Your task to perform on an android device: Clear the shopping cart on bestbuy.com. Image 0: 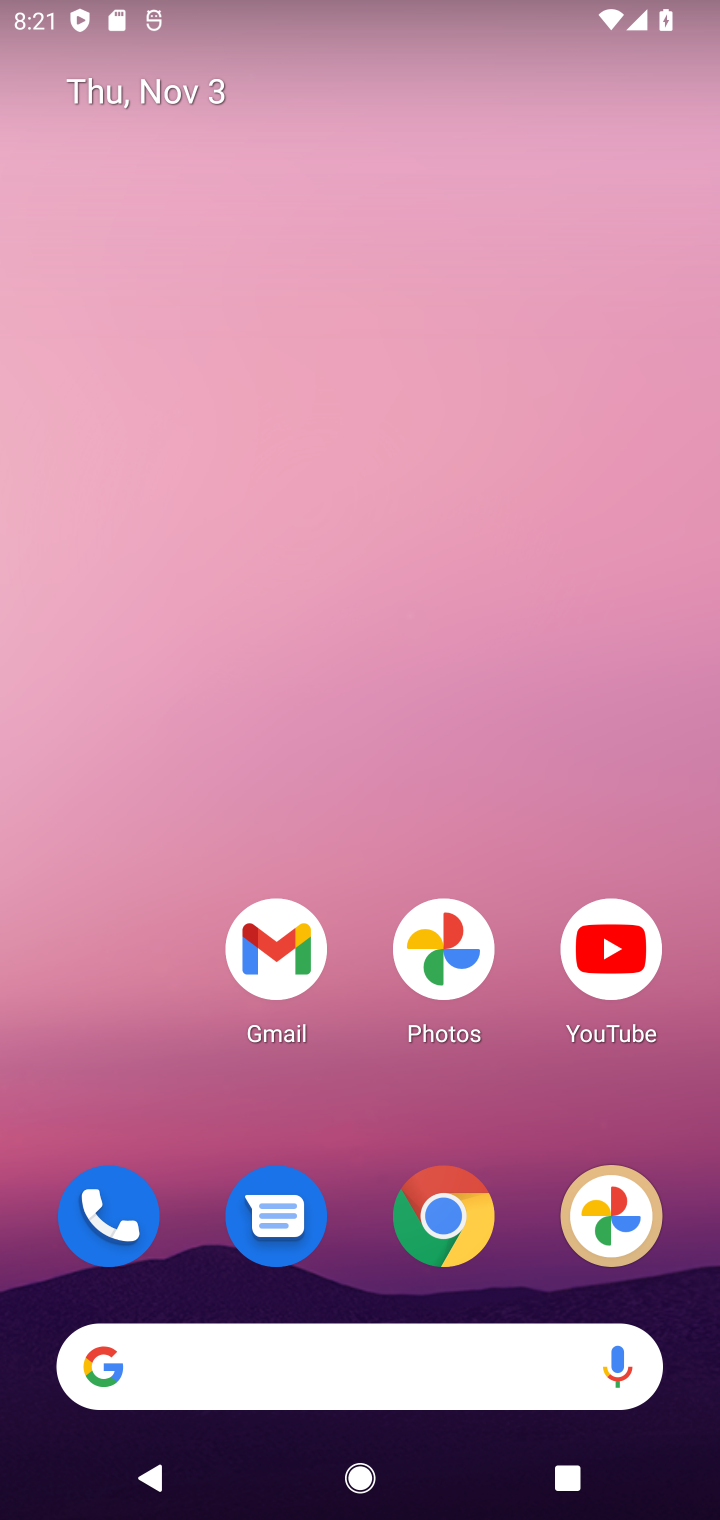
Step 0: click (456, 1218)
Your task to perform on an android device: Clear the shopping cart on bestbuy.com. Image 1: 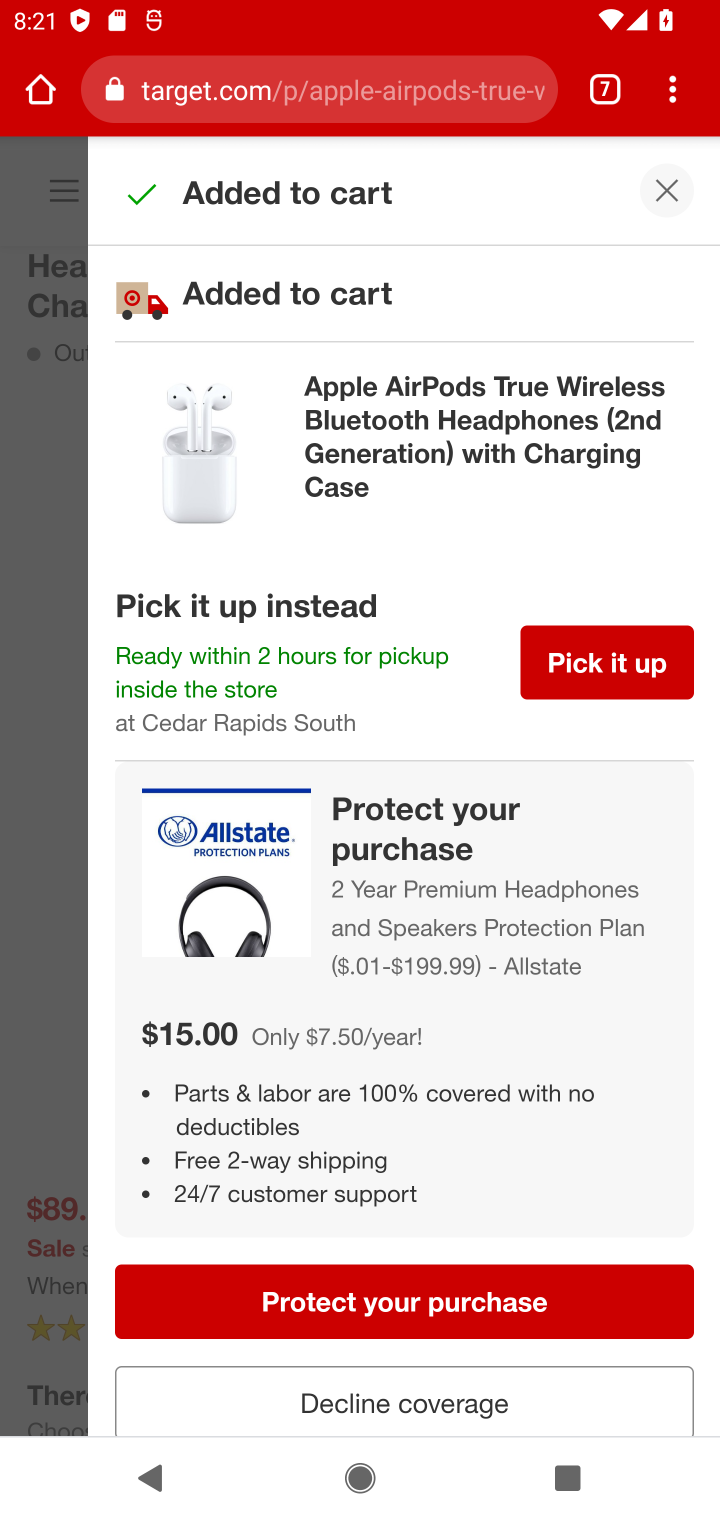
Step 1: click (614, 88)
Your task to perform on an android device: Clear the shopping cart on bestbuy.com. Image 2: 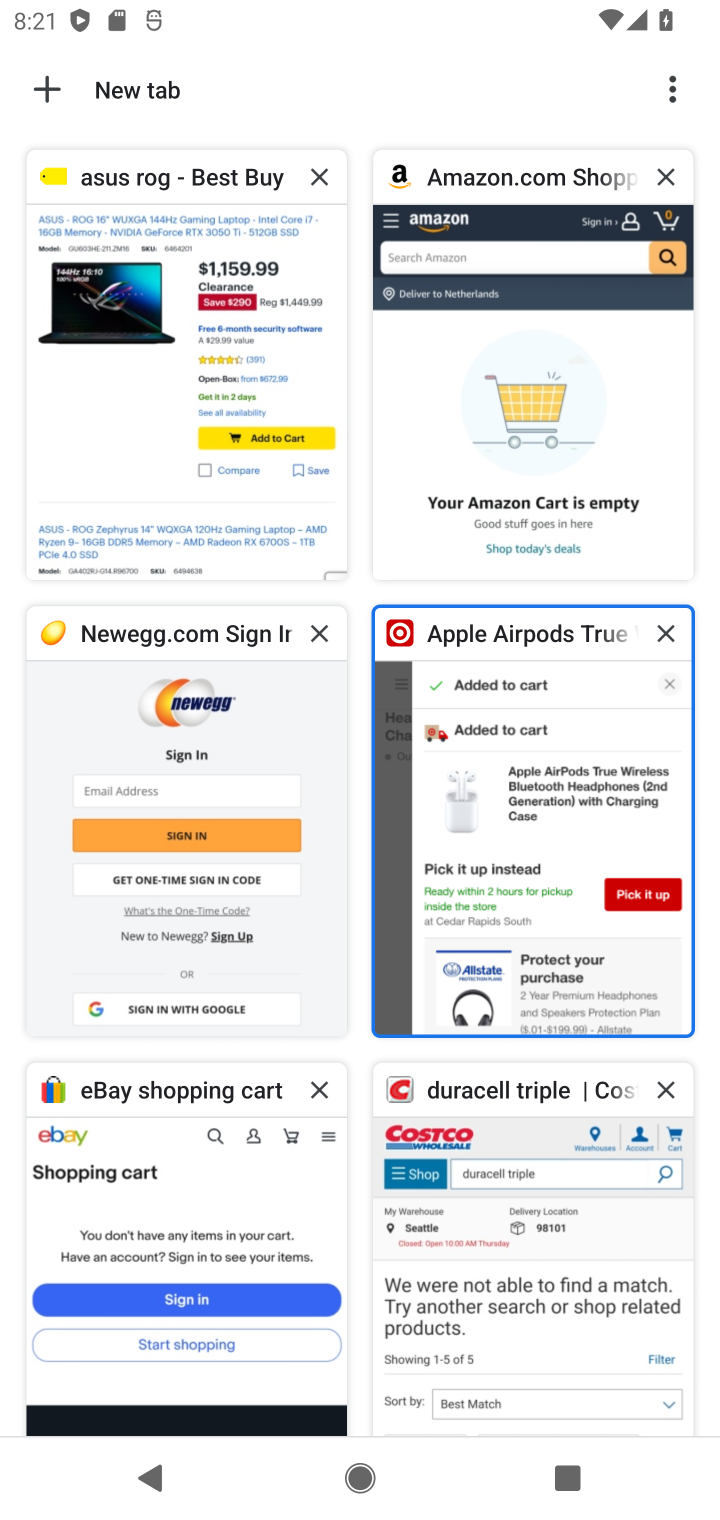
Step 2: click (218, 277)
Your task to perform on an android device: Clear the shopping cart on bestbuy.com. Image 3: 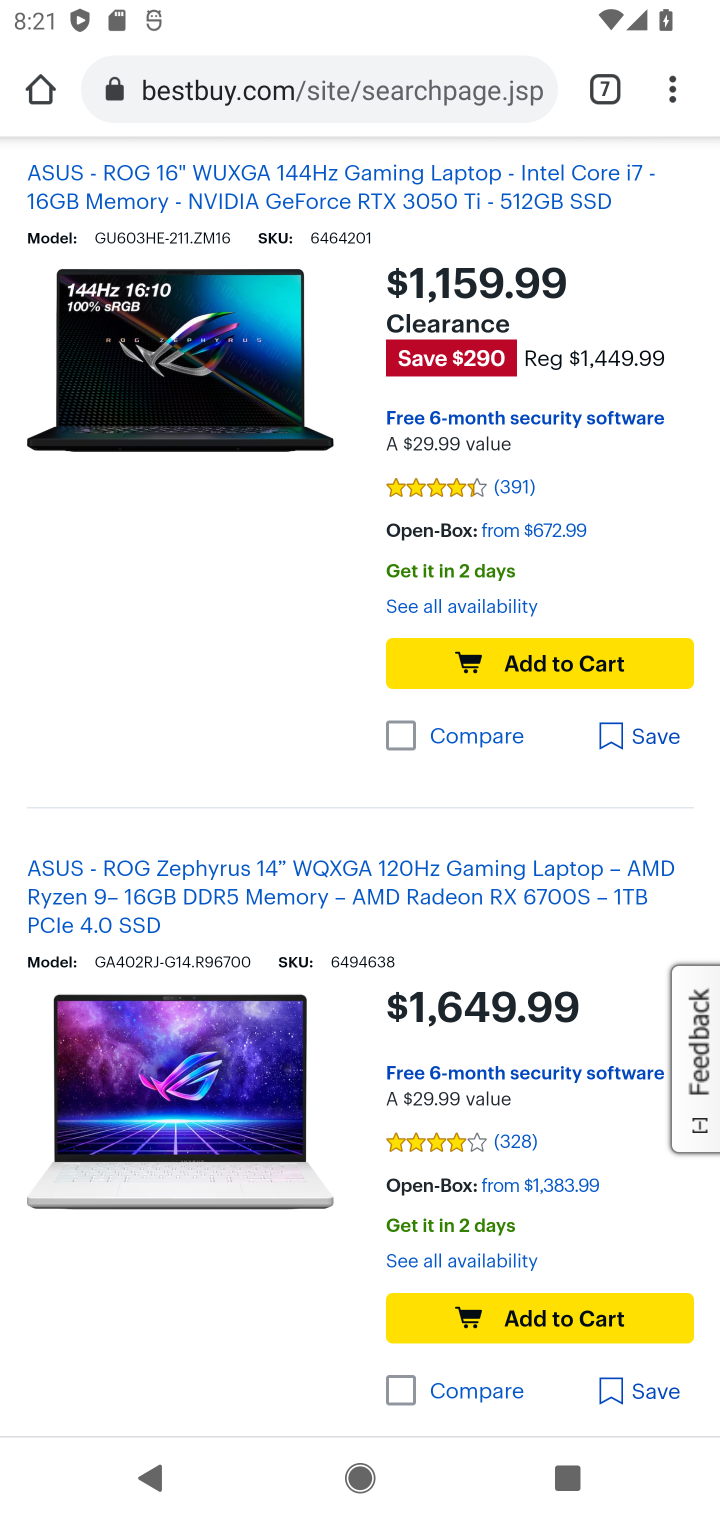
Step 3: drag from (664, 245) to (660, 990)
Your task to perform on an android device: Clear the shopping cart on bestbuy.com. Image 4: 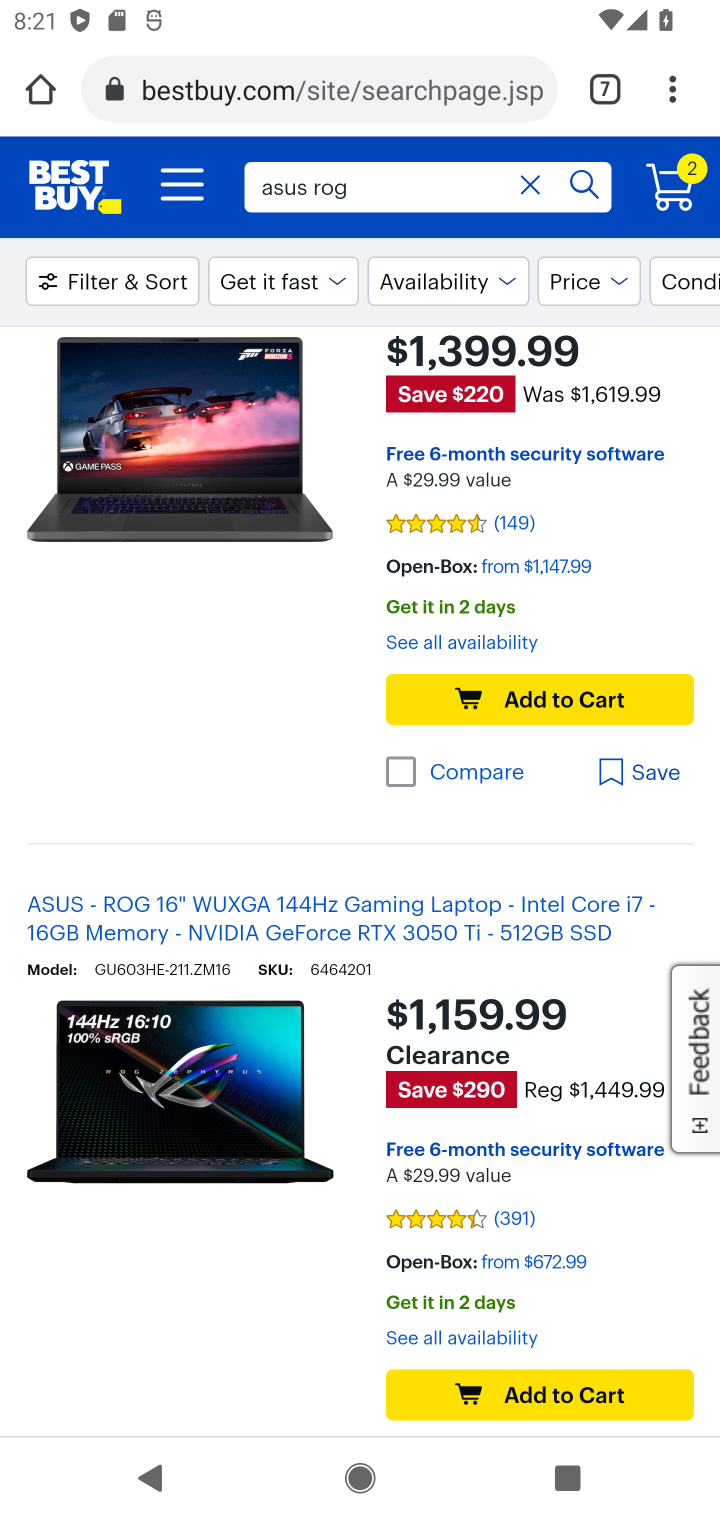
Step 4: click (681, 191)
Your task to perform on an android device: Clear the shopping cart on bestbuy.com. Image 5: 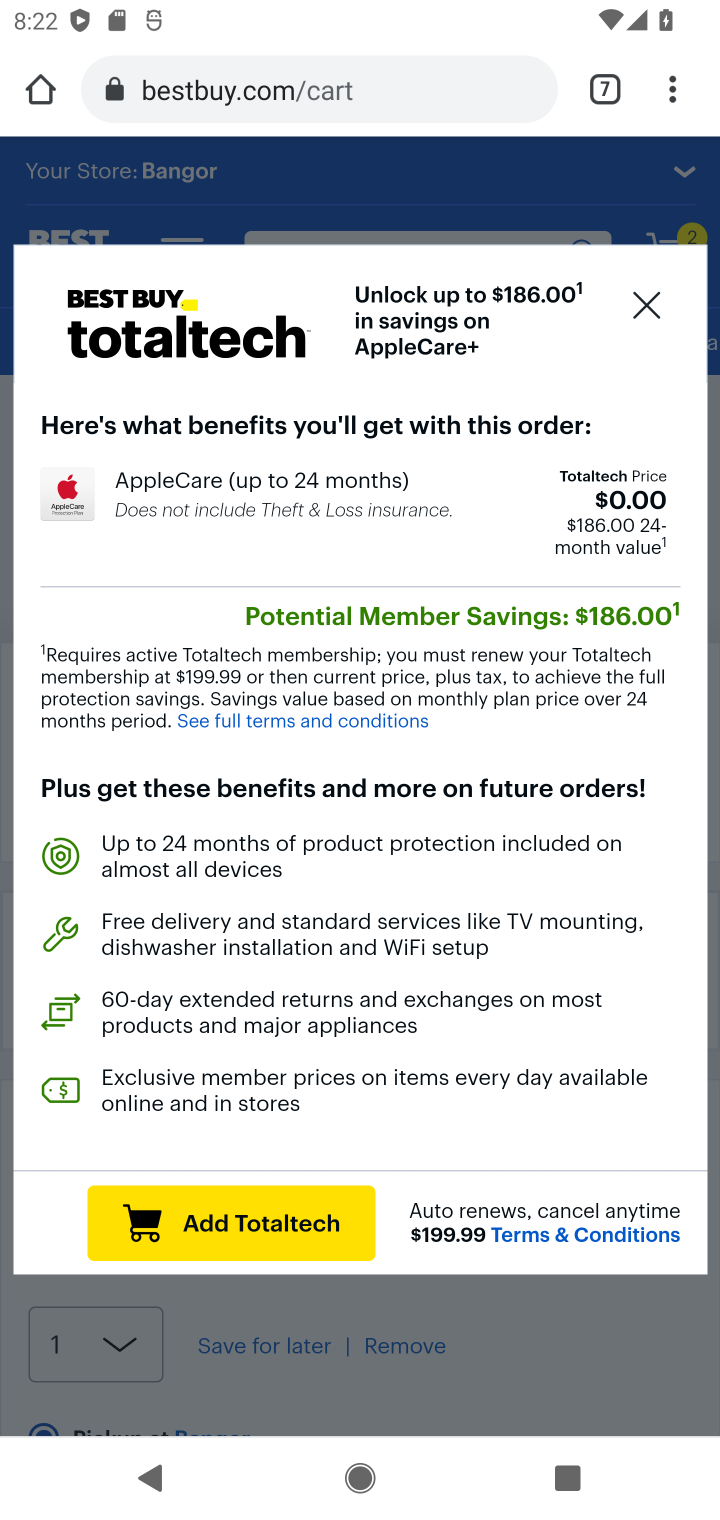
Step 5: click (652, 305)
Your task to perform on an android device: Clear the shopping cart on bestbuy.com. Image 6: 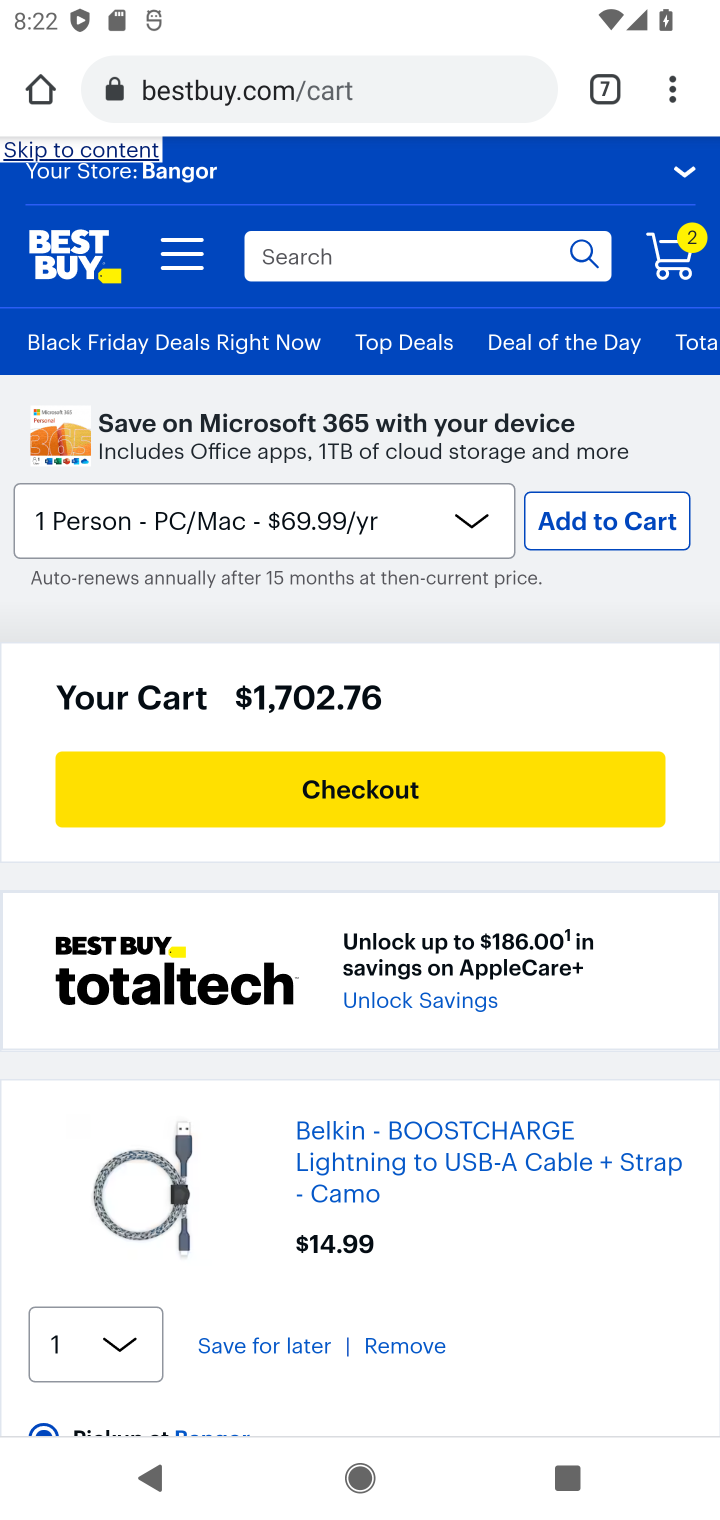
Step 6: click (397, 1342)
Your task to perform on an android device: Clear the shopping cart on bestbuy.com. Image 7: 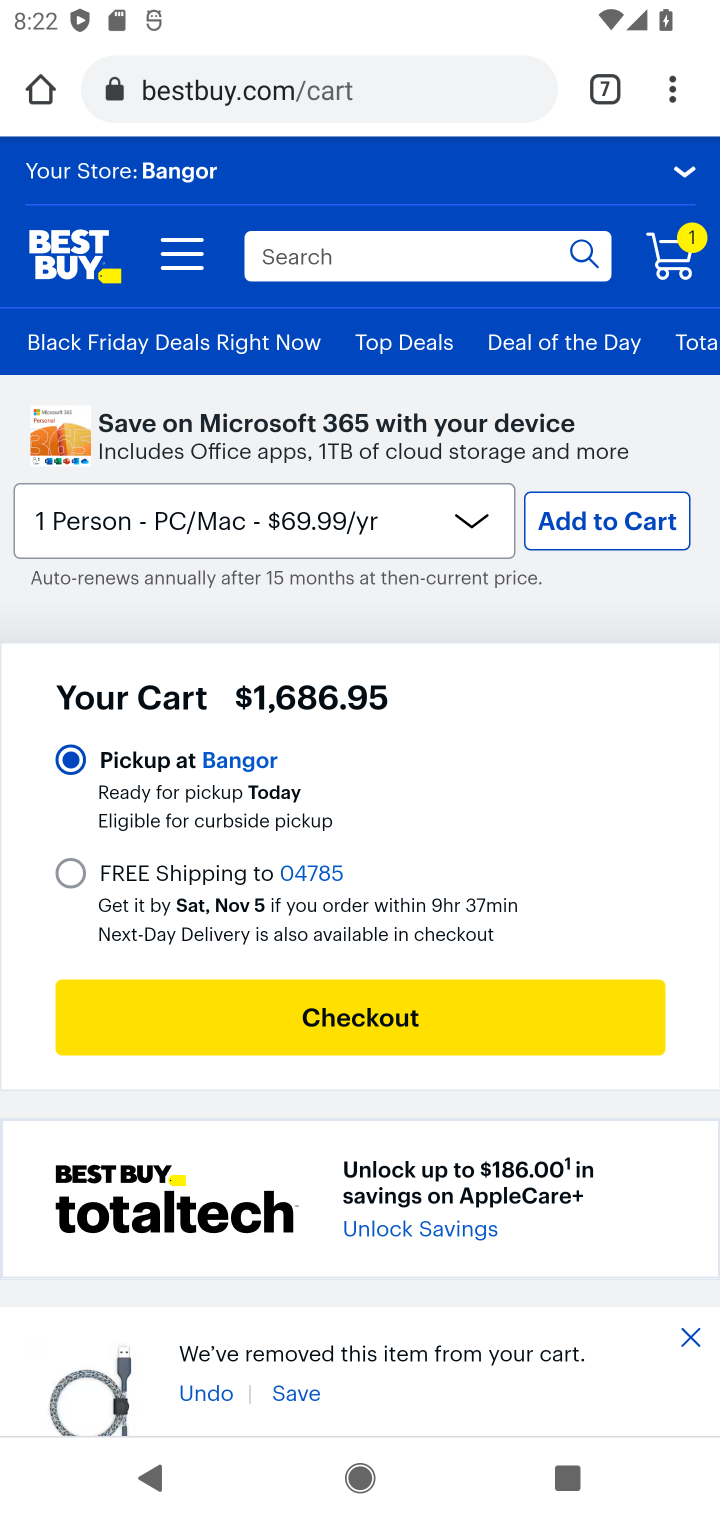
Step 7: drag from (407, 1370) to (370, 610)
Your task to perform on an android device: Clear the shopping cart on bestbuy.com. Image 8: 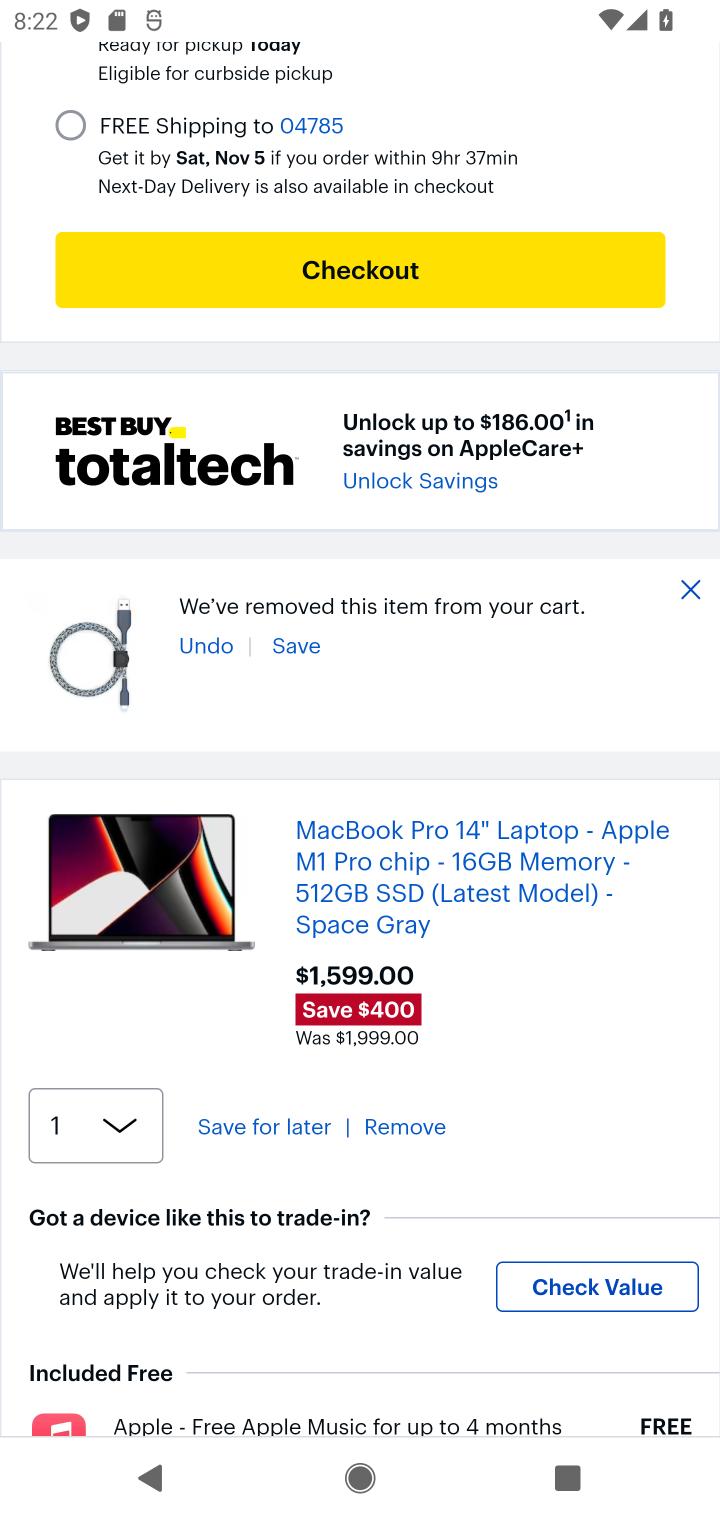
Step 8: click (401, 1122)
Your task to perform on an android device: Clear the shopping cart on bestbuy.com. Image 9: 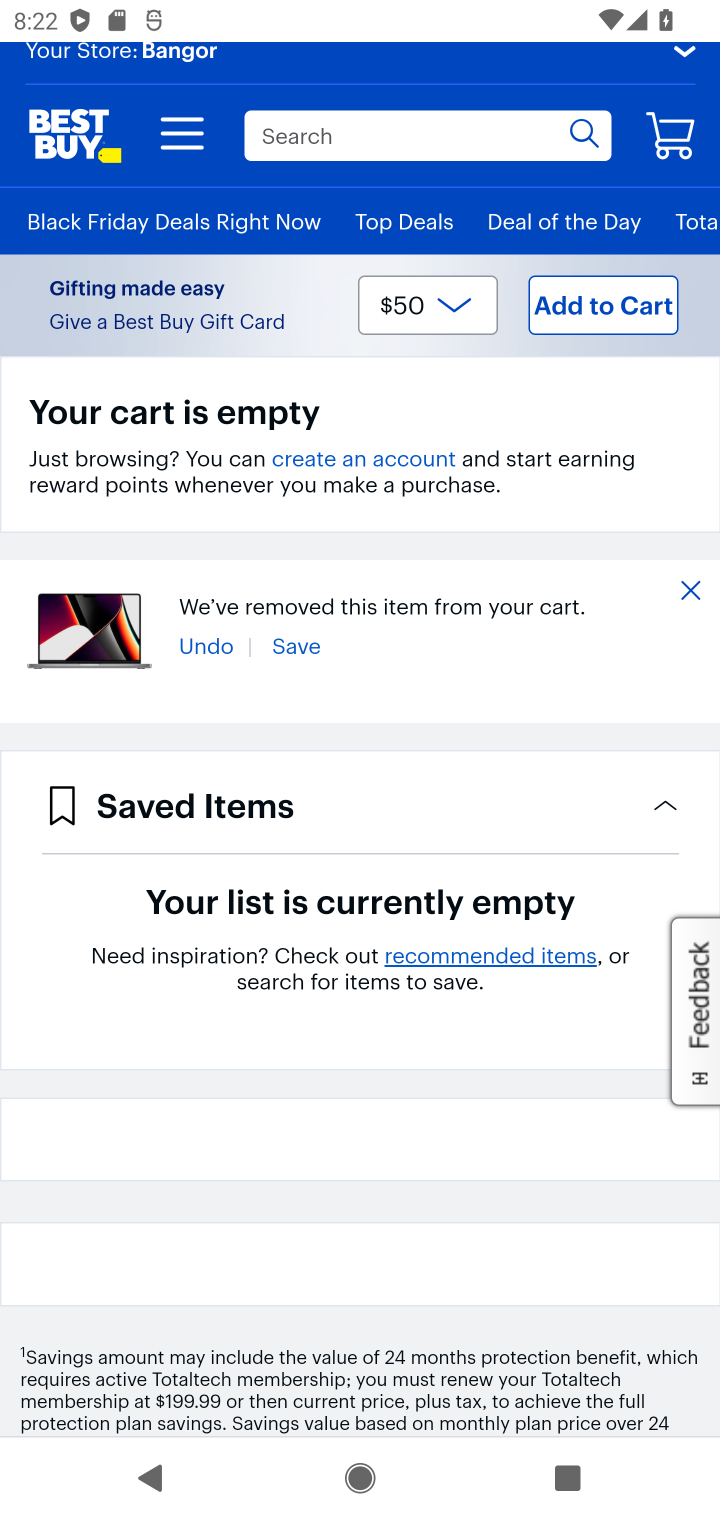
Step 9: task complete